Your task to perform on an android device: check google app version Image 0: 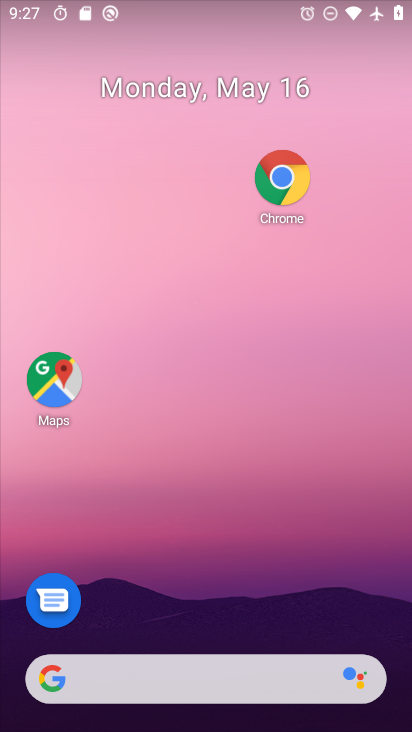
Step 0: drag from (213, 675) to (328, 114)
Your task to perform on an android device: check google app version Image 1: 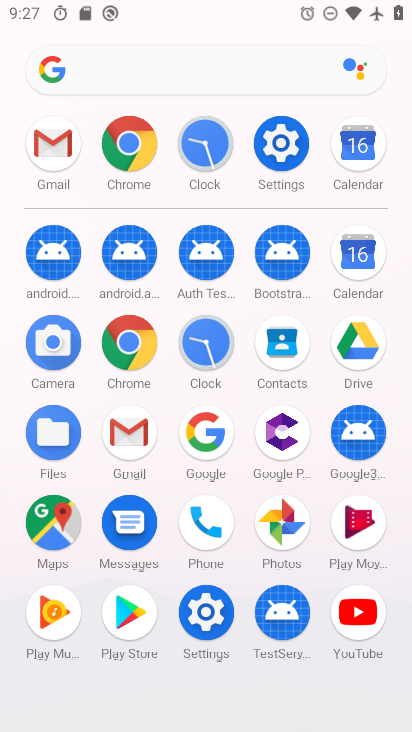
Step 1: click (214, 429)
Your task to perform on an android device: check google app version Image 2: 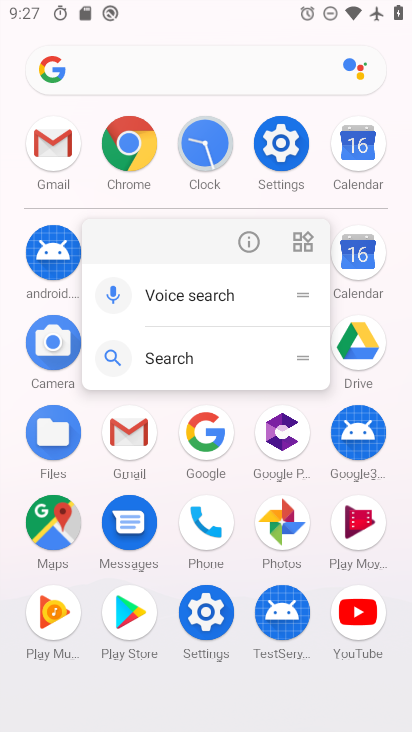
Step 2: click (254, 239)
Your task to perform on an android device: check google app version Image 3: 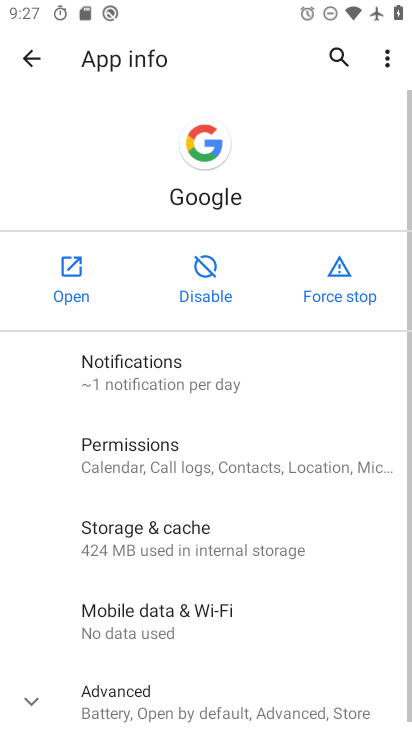
Step 3: drag from (276, 667) to (351, 212)
Your task to perform on an android device: check google app version Image 4: 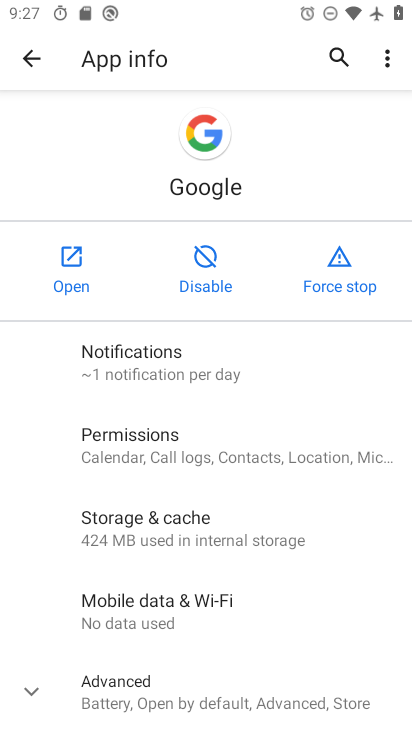
Step 4: click (151, 680)
Your task to perform on an android device: check google app version Image 5: 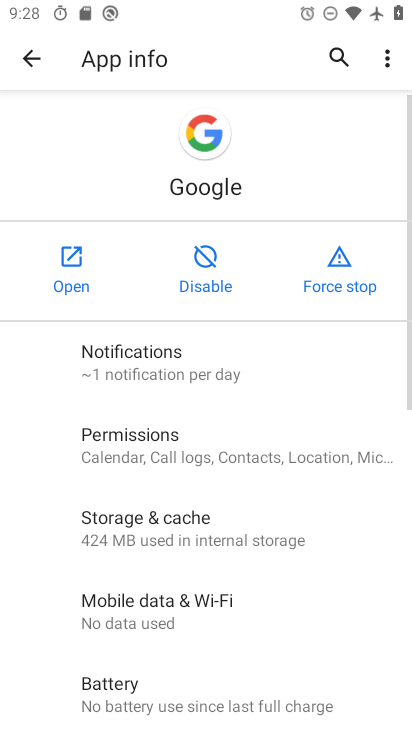
Step 5: task complete